Your task to perform on an android device: Open Wikipedia Image 0: 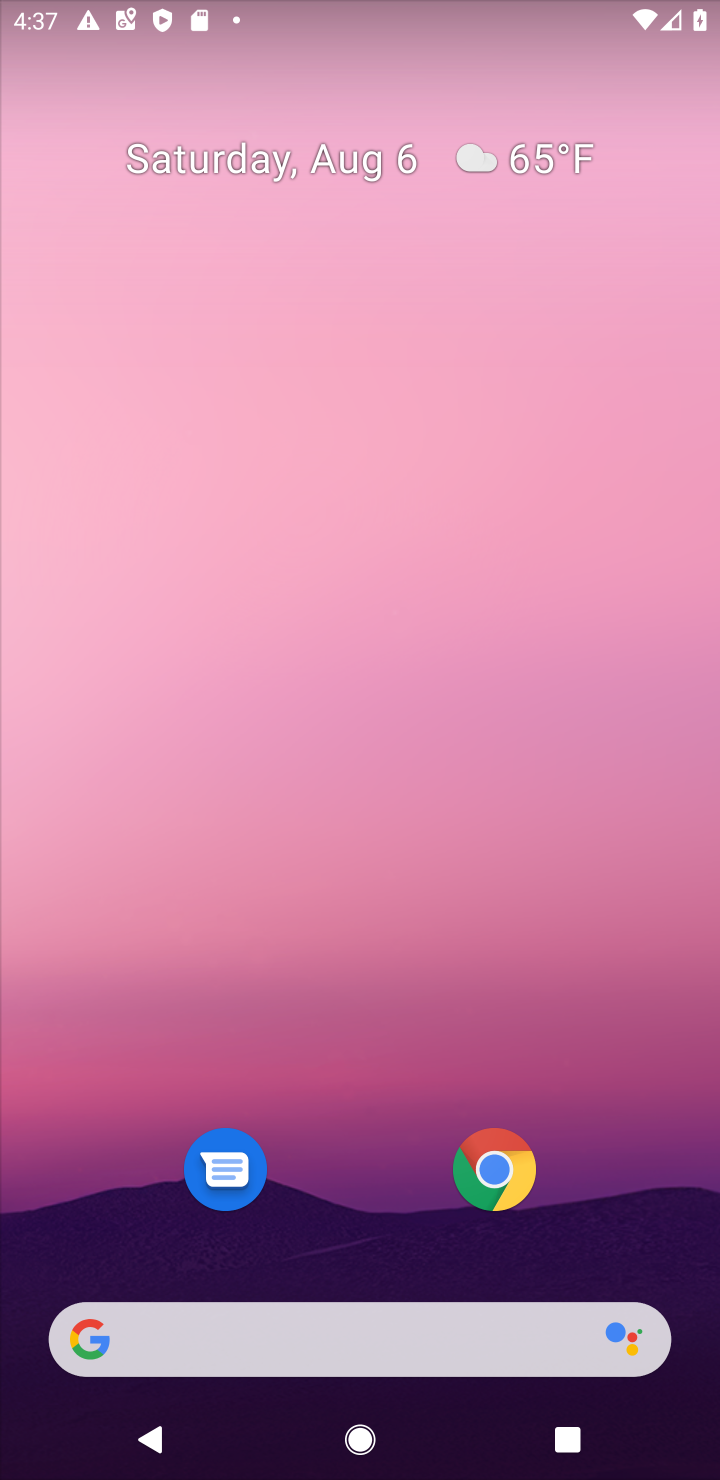
Step 0: click (489, 1178)
Your task to perform on an android device: Open Wikipedia Image 1: 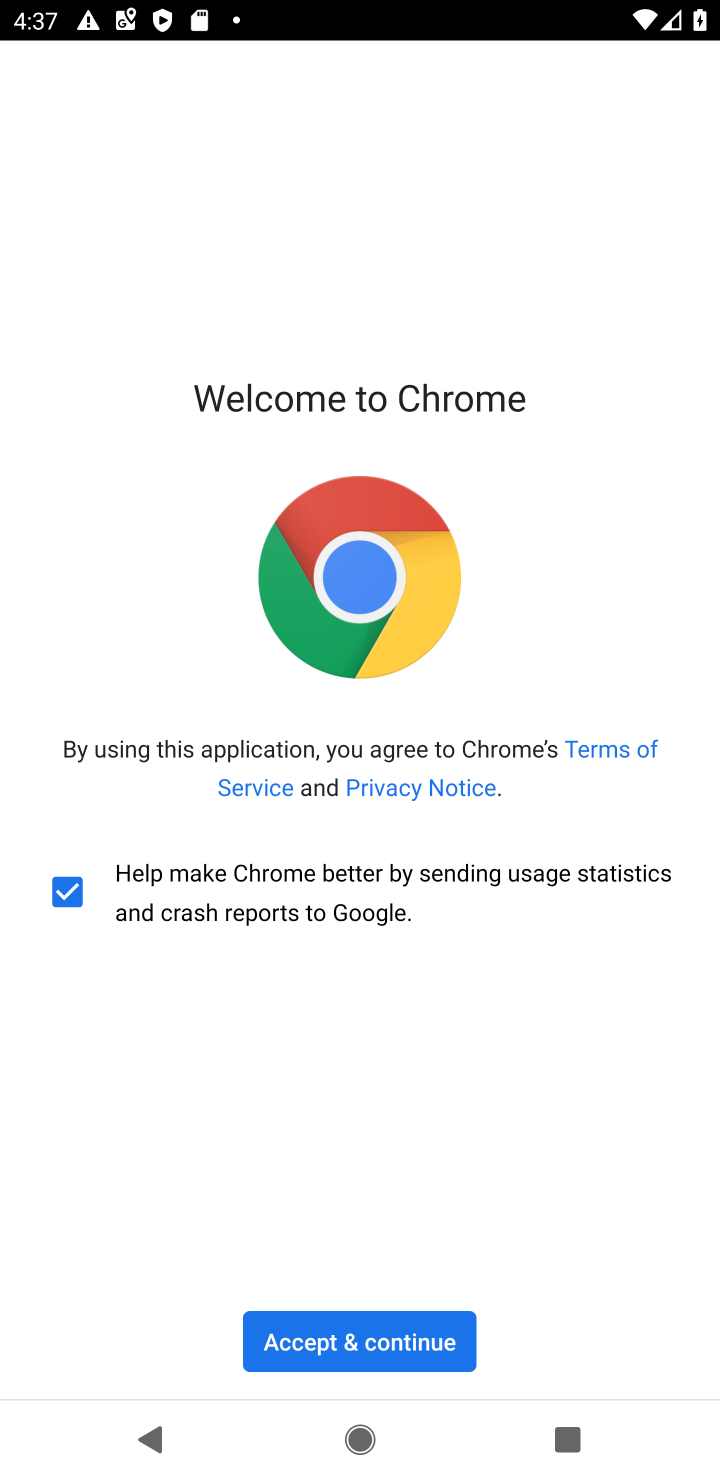
Step 1: click (359, 1343)
Your task to perform on an android device: Open Wikipedia Image 2: 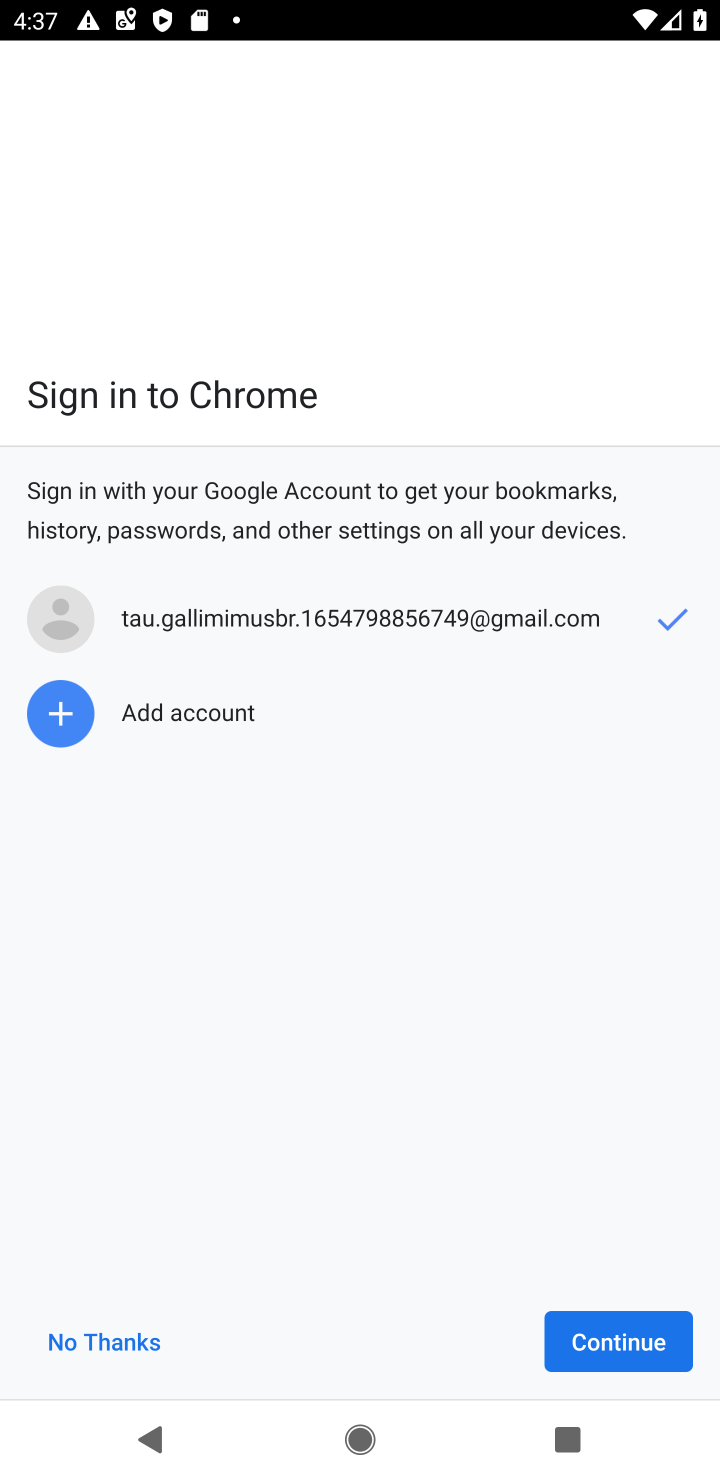
Step 2: click (635, 1313)
Your task to perform on an android device: Open Wikipedia Image 3: 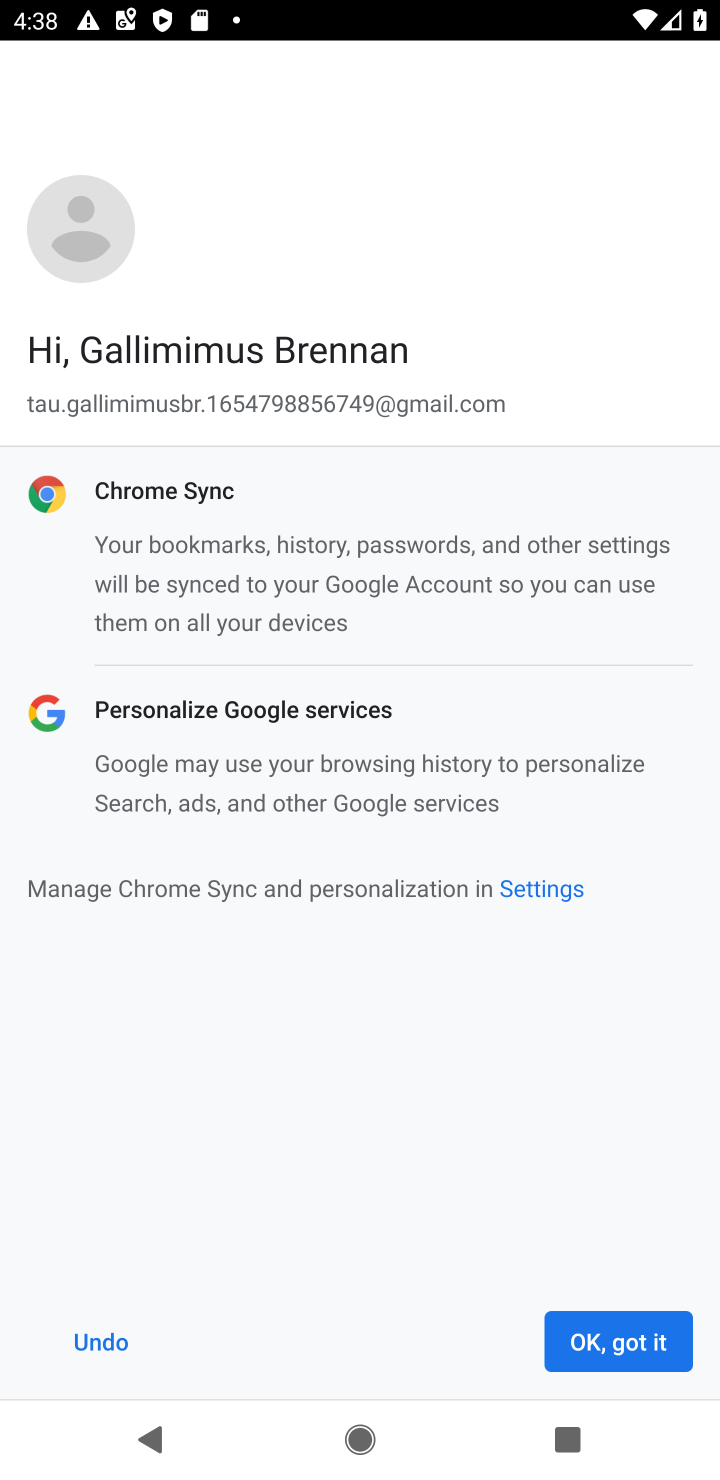
Step 3: click (632, 1330)
Your task to perform on an android device: Open Wikipedia Image 4: 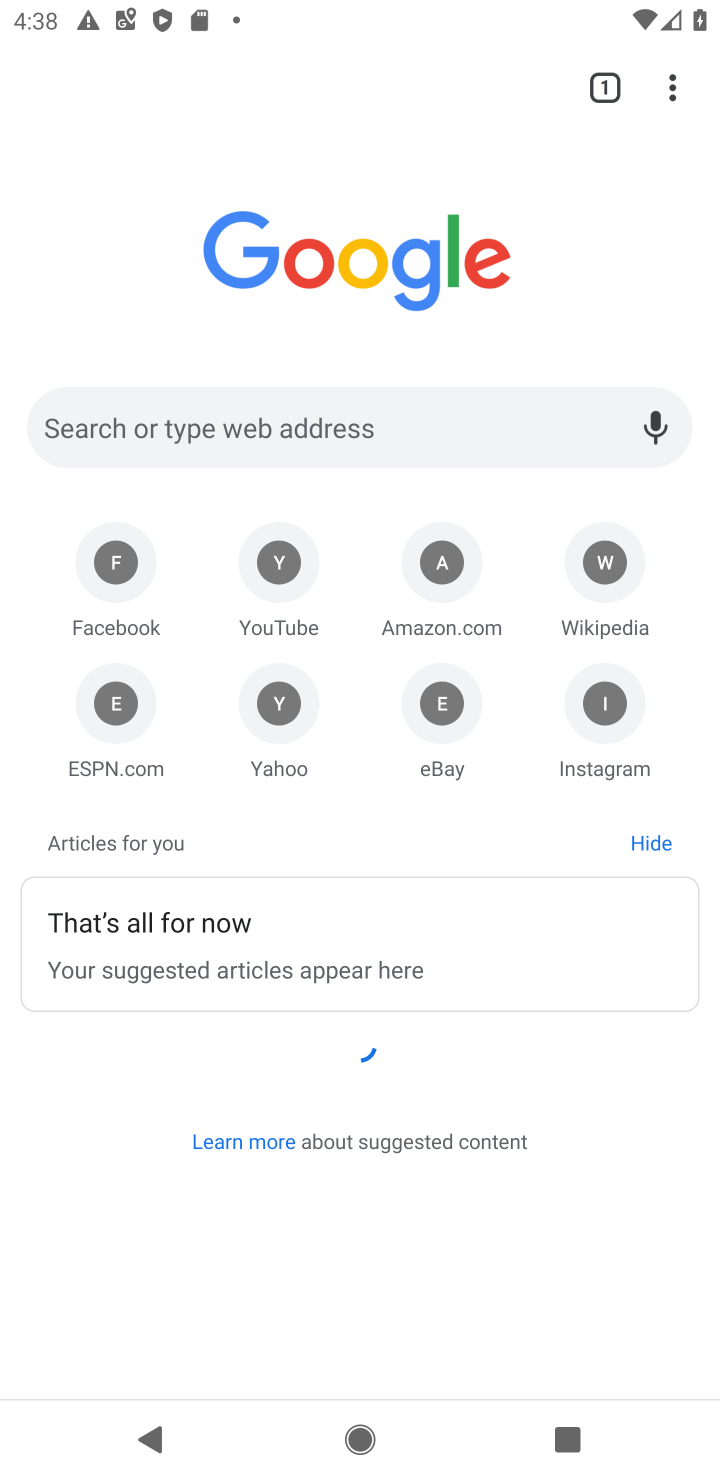
Step 4: click (614, 582)
Your task to perform on an android device: Open Wikipedia Image 5: 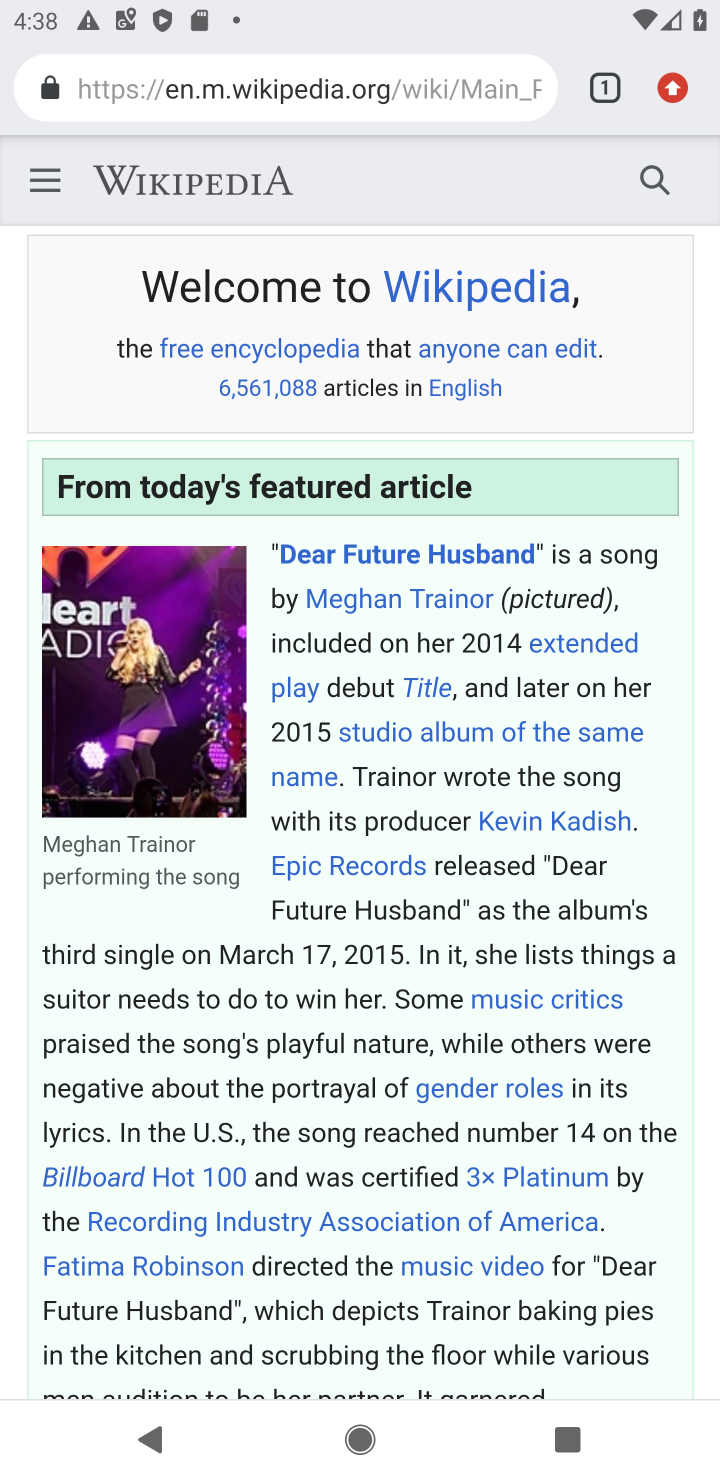
Step 5: task complete